Your task to perform on an android device: toggle notification dots Image 0: 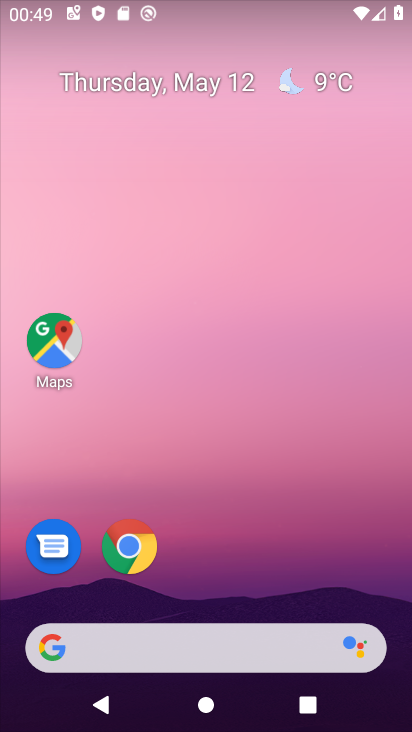
Step 0: drag from (183, 576) to (205, 250)
Your task to perform on an android device: toggle notification dots Image 1: 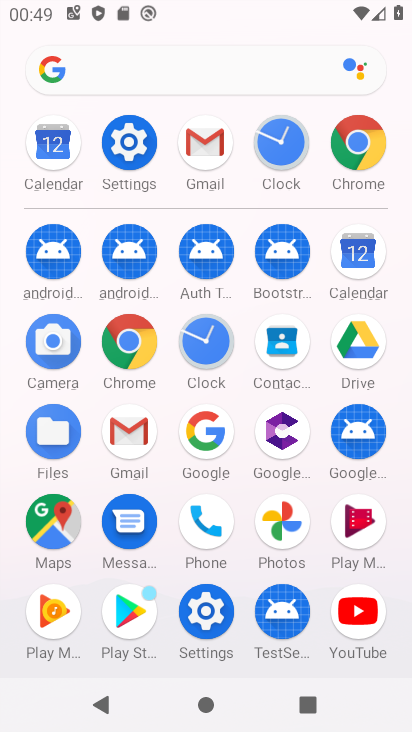
Step 1: click (122, 148)
Your task to perform on an android device: toggle notification dots Image 2: 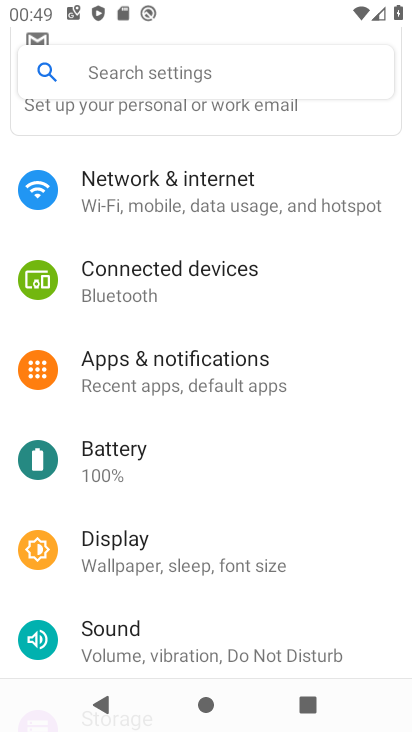
Step 2: click (241, 373)
Your task to perform on an android device: toggle notification dots Image 3: 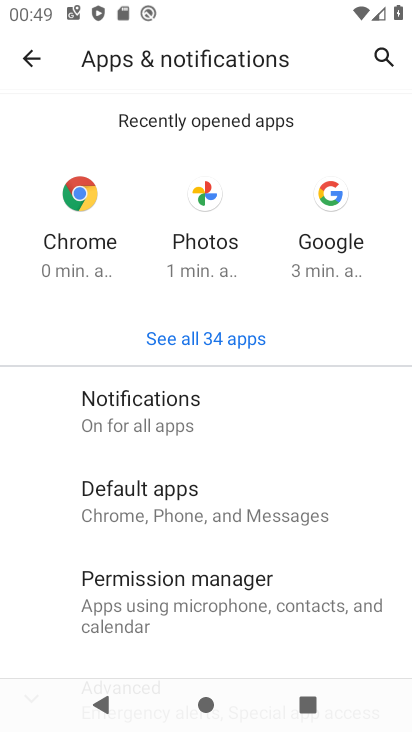
Step 3: click (179, 412)
Your task to perform on an android device: toggle notification dots Image 4: 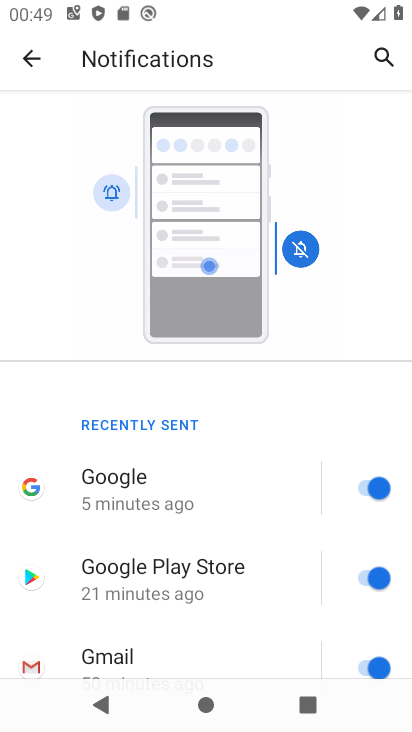
Step 4: drag from (200, 625) to (262, 171)
Your task to perform on an android device: toggle notification dots Image 5: 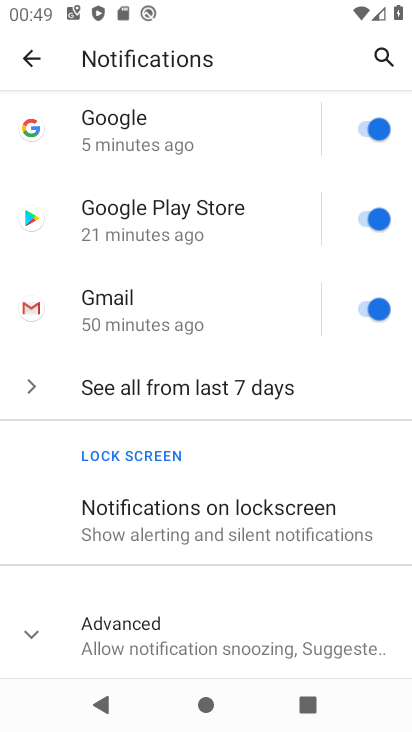
Step 5: click (42, 625)
Your task to perform on an android device: toggle notification dots Image 6: 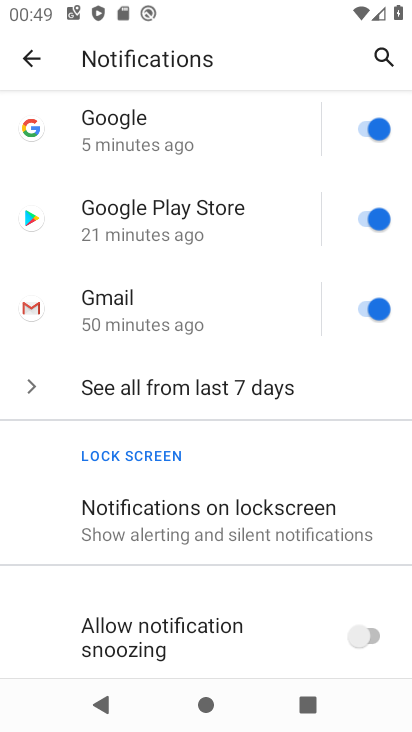
Step 6: task complete